Your task to perform on an android device: turn on the 12-hour format for clock Image 0: 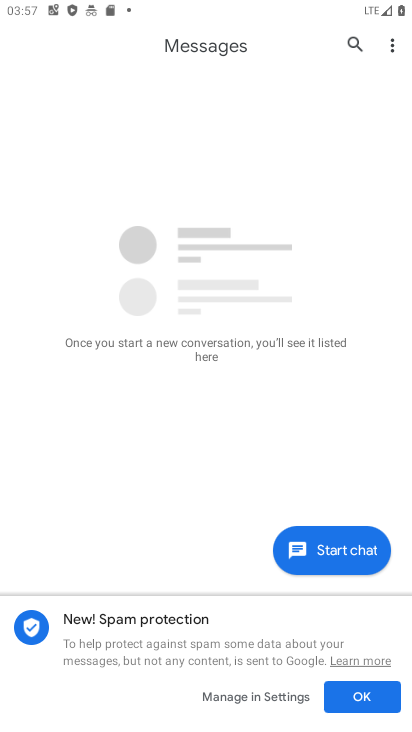
Step 0: press home button
Your task to perform on an android device: turn on the 12-hour format for clock Image 1: 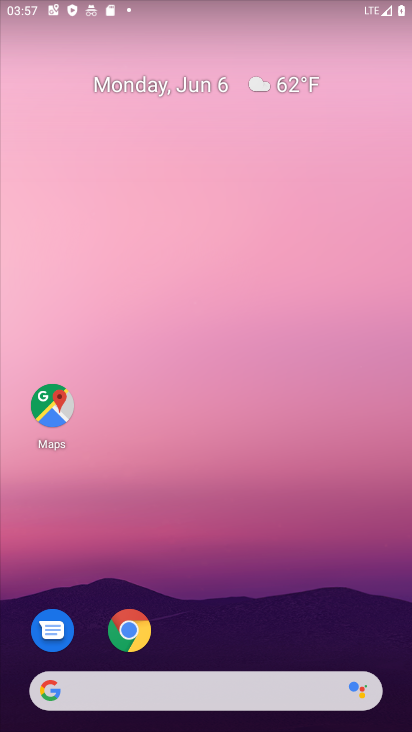
Step 1: drag from (268, 629) to (223, 53)
Your task to perform on an android device: turn on the 12-hour format for clock Image 2: 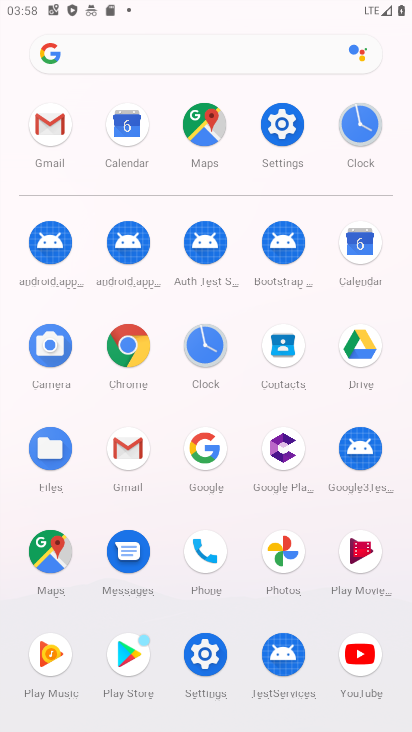
Step 2: click (291, 116)
Your task to perform on an android device: turn on the 12-hour format for clock Image 3: 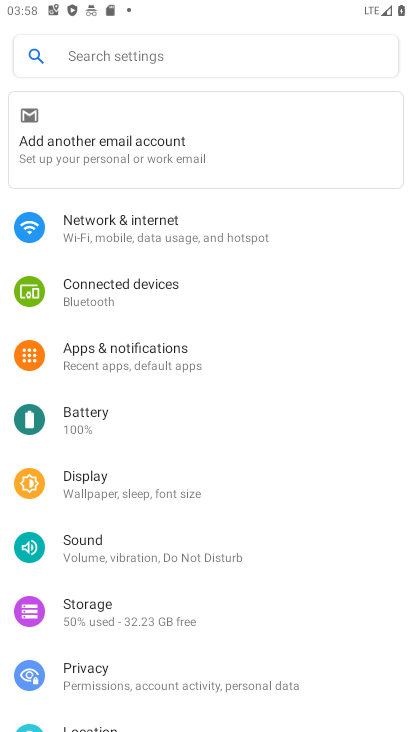
Step 3: press home button
Your task to perform on an android device: turn on the 12-hour format for clock Image 4: 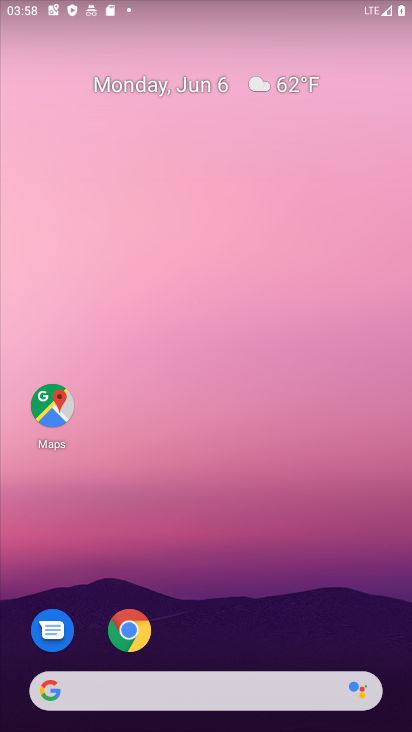
Step 4: drag from (260, 636) to (264, 4)
Your task to perform on an android device: turn on the 12-hour format for clock Image 5: 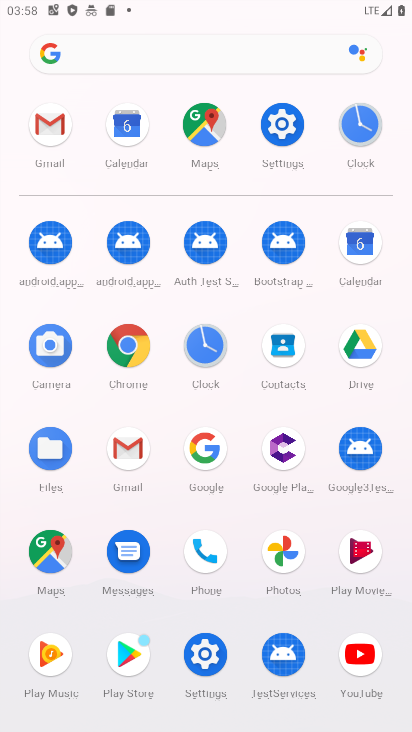
Step 5: click (364, 129)
Your task to perform on an android device: turn on the 12-hour format for clock Image 6: 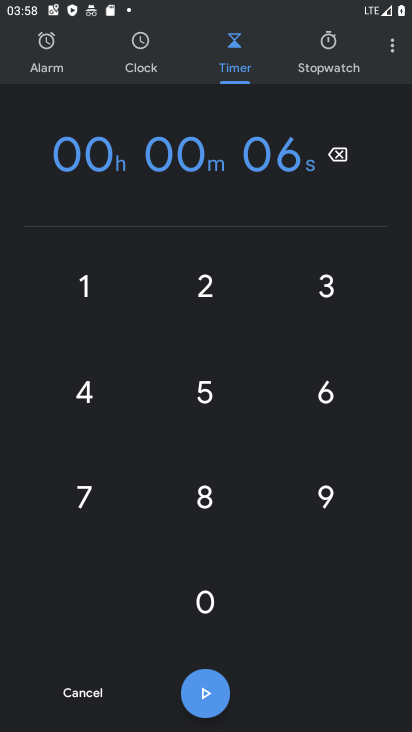
Step 6: click (387, 43)
Your task to perform on an android device: turn on the 12-hour format for clock Image 7: 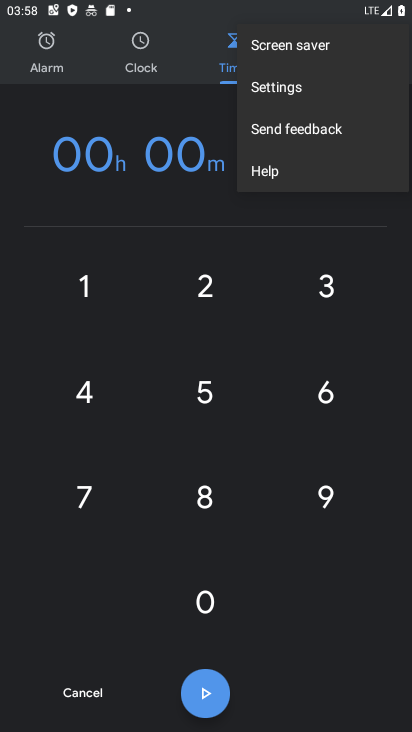
Step 7: click (284, 107)
Your task to perform on an android device: turn on the 12-hour format for clock Image 8: 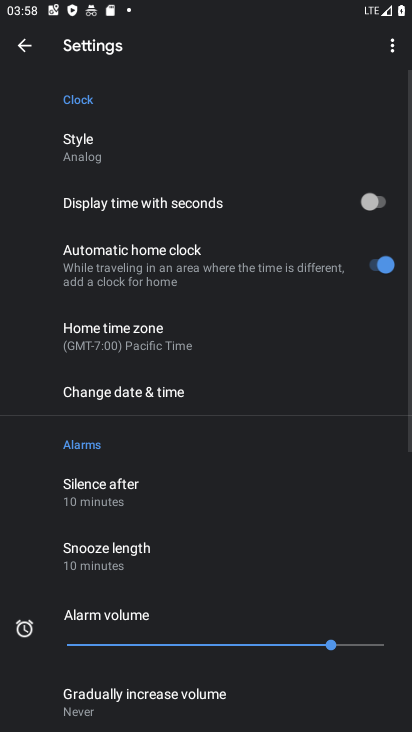
Step 8: drag from (188, 587) to (187, 10)
Your task to perform on an android device: turn on the 12-hour format for clock Image 9: 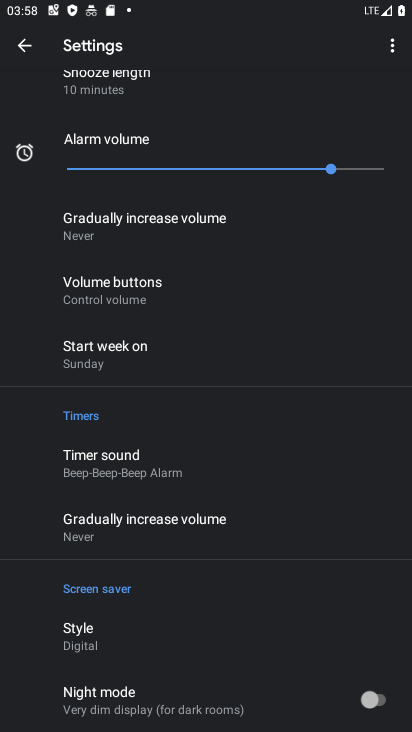
Step 9: drag from (201, 171) to (178, 727)
Your task to perform on an android device: turn on the 12-hour format for clock Image 10: 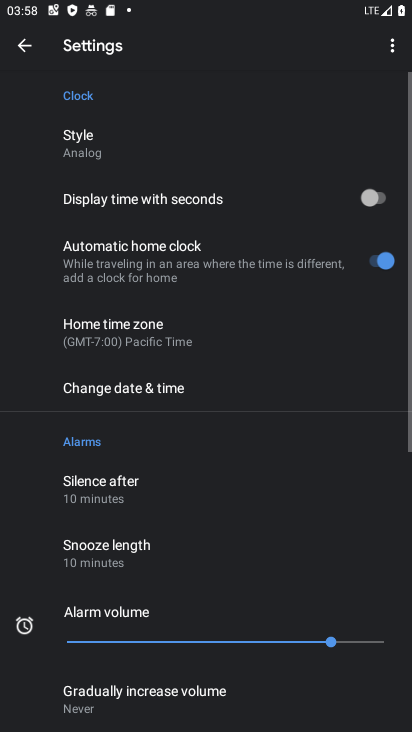
Step 10: click (153, 377)
Your task to perform on an android device: turn on the 12-hour format for clock Image 11: 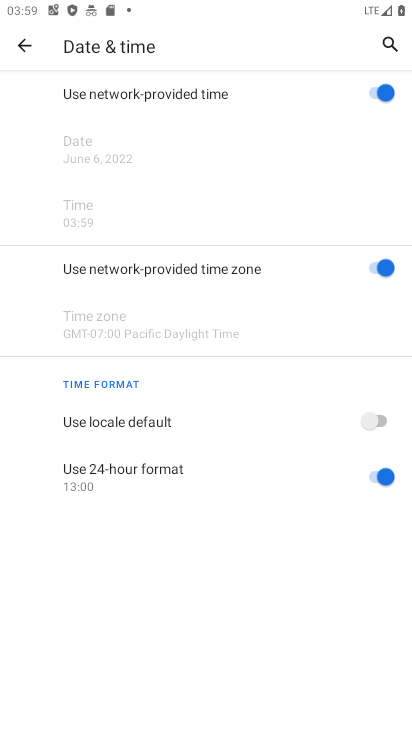
Step 11: task complete